Your task to perform on an android device: add a contact in the contacts app Image 0: 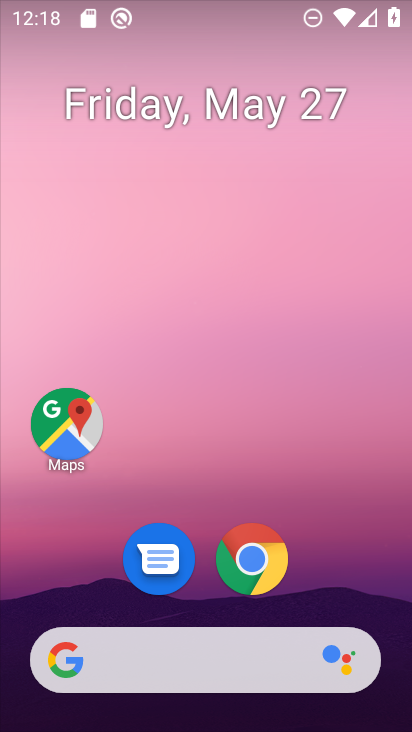
Step 0: drag from (329, 601) to (407, 26)
Your task to perform on an android device: add a contact in the contacts app Image 1: 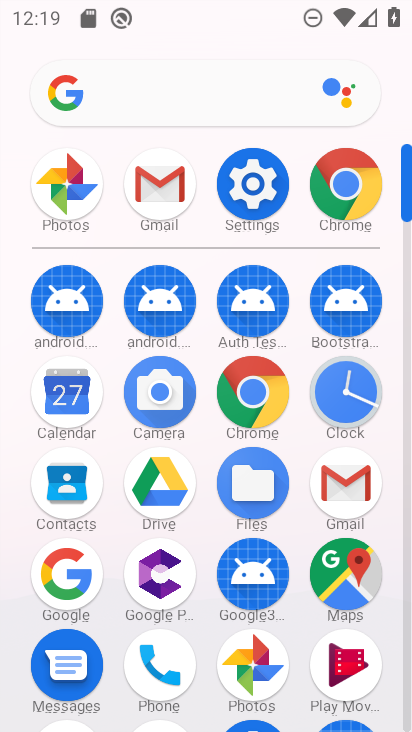
Step 1: click (85, 496)
Your task to perform on an android device: add a contact in the contacts app Image 2: 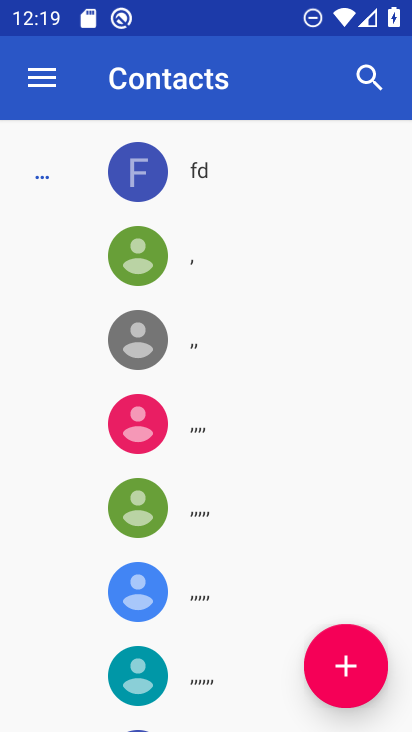
Step 2: click (367, 638)
Your task to perform on an android device: add a contact in the contacts app Image 3: 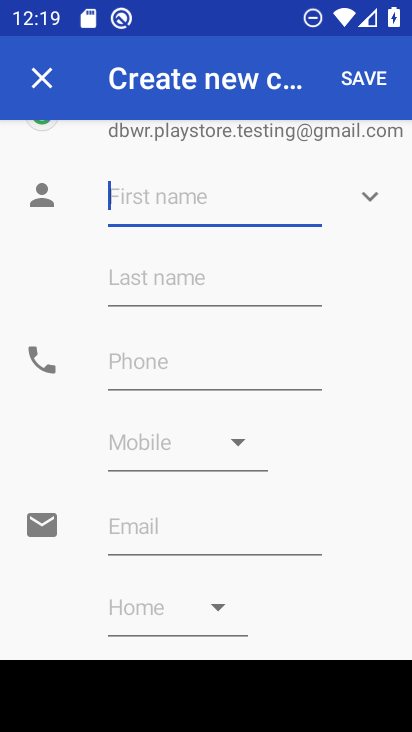
Step 3: type "fhgffzfgfjh"
Your task to perform on an android device: add a contact in the contacts app Image 4: 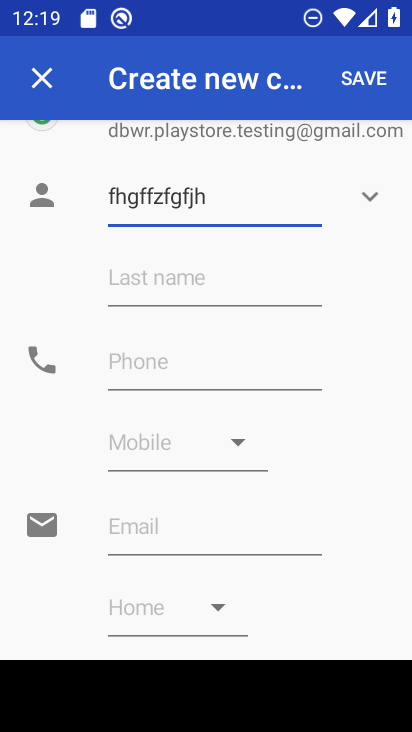
Step 4: click (196, 338)
Your task to perform on an android device: add a contact in the contacts app Image 5: 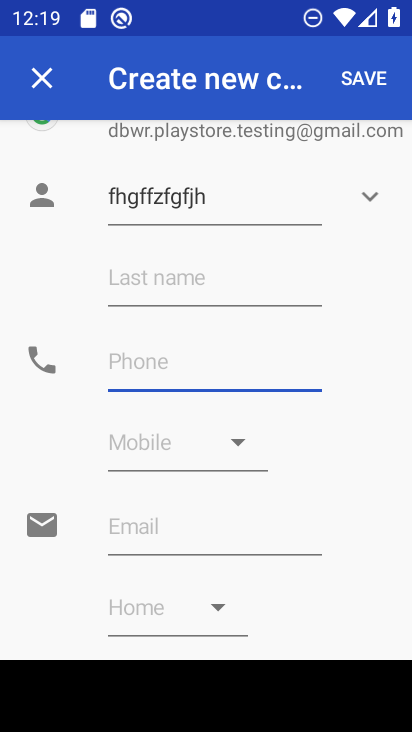
Step 5: click (194, 366)
Your task to perform on an android device: add a contact in the contacts app Image 6: 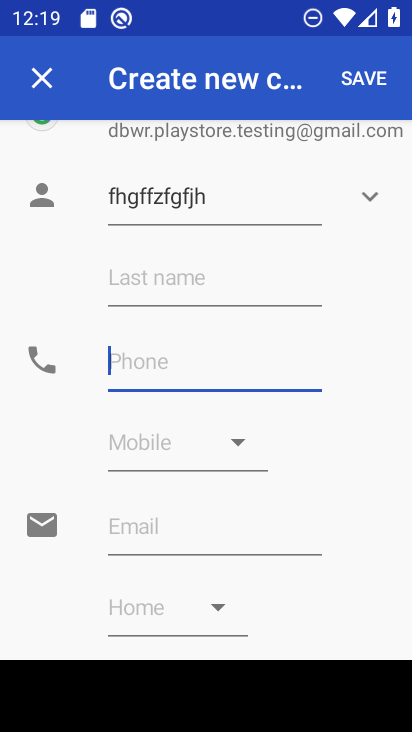
Step 6: type "476987890"
Your task to perform on an android device: add a contact in the contacts app Image 7: 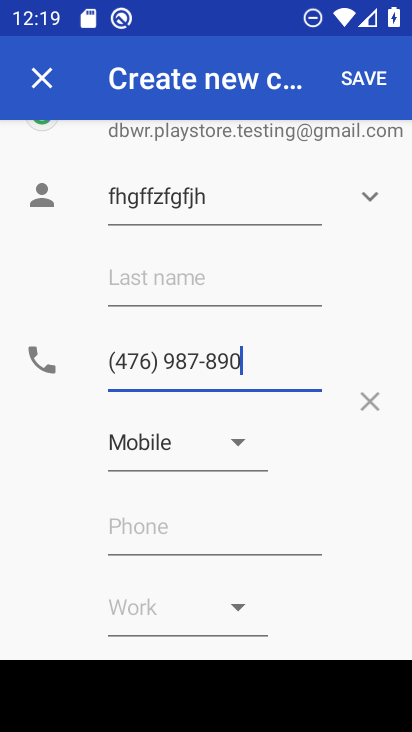
Step 7: type "1"
Your task to perform on an android device: add a contact in the contacts app Image 8: 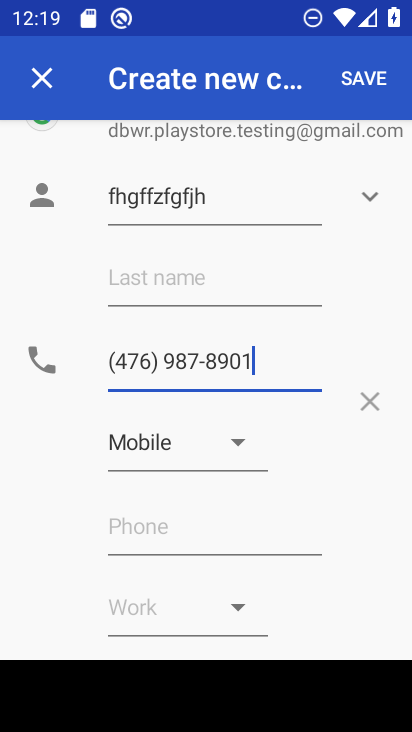
Step 8: click (373, 65)
Your task to perform on an android device: add a contact in the contacts app Image 9: 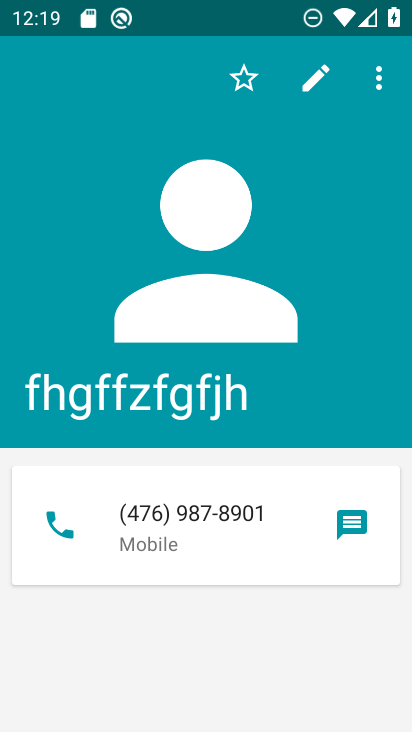
Step 9: task complete